Your task to perform on an android device: Open internet settings Image 0: 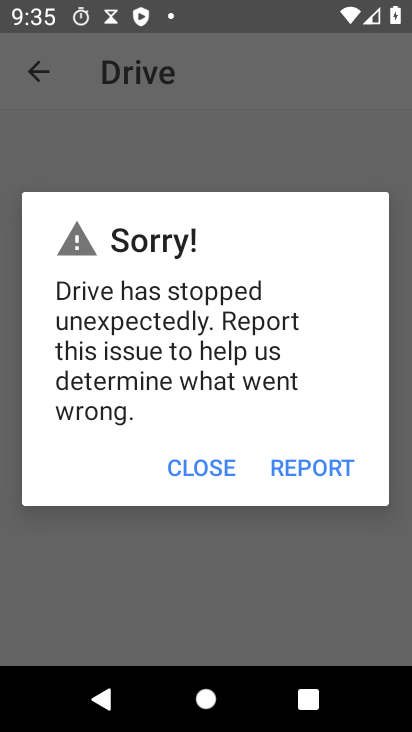
Step 0: press home button
Your task to perform on an android device: Open internet settings Image 1: 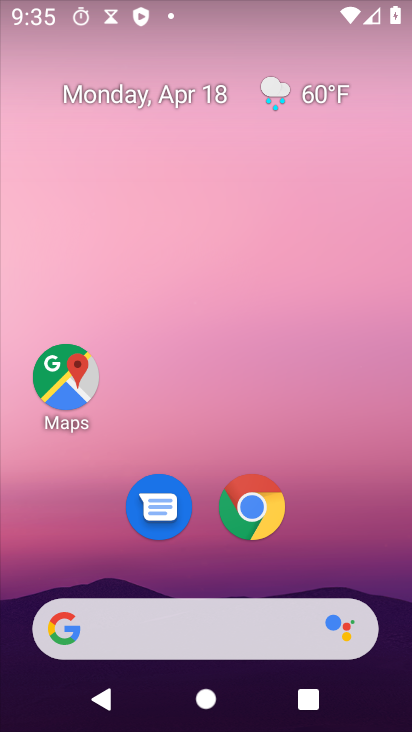
Step 1: drag from (298, 562) to (330, 120)
Your task to perform on an android device: Open internet settings Image 2: 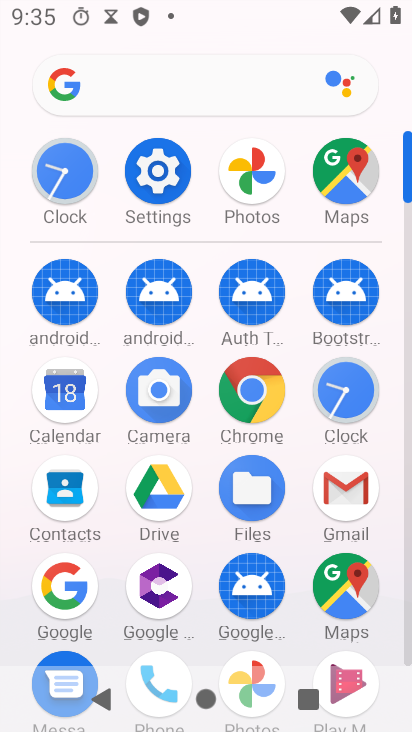
Step 2: click (161, 171)
Your task to perform on an android device: Open internet settings Image 3: 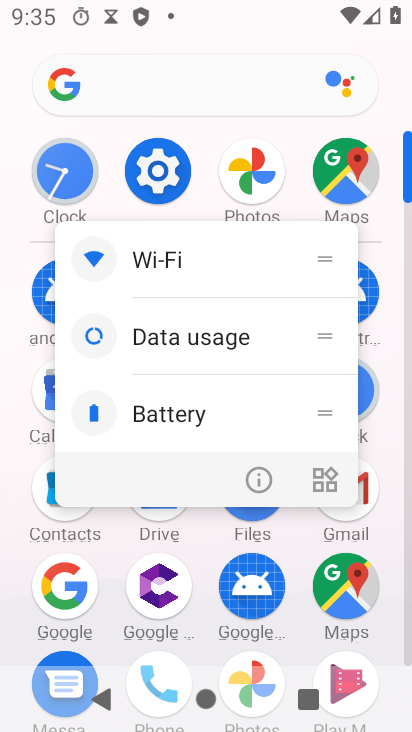
Step 3: click (162, 168)
Your task to perform on an android device: Open internet settings Image 4: 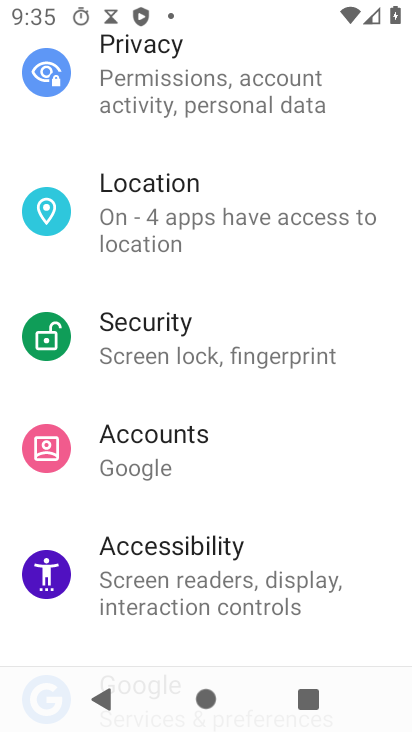
Step 4: drag from (201, 448) to (227, 507)
Your task to perform on an android device: Open internet settings Image 5: 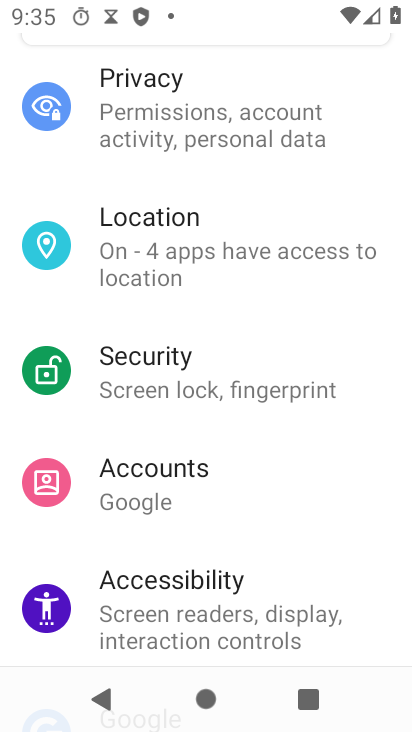
Step 5: drag from (194, 420) to (232, 502)
Your task to perform on an android device: Open internet settings Image 6: 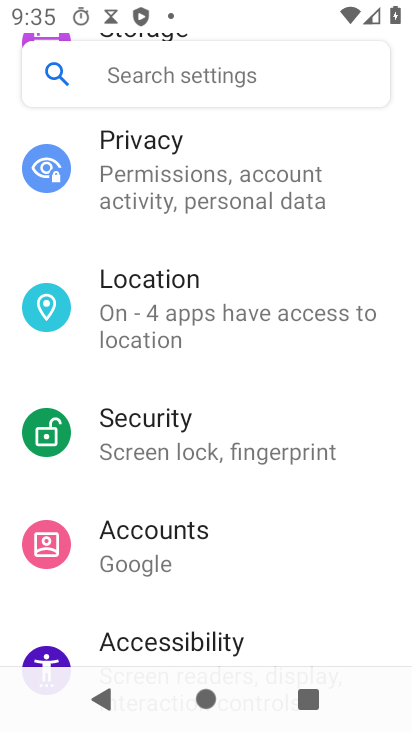
Step 6: drag from (195, 360) to (228, 433)
Your task to perform on an android device: Open internet settings Image 7: 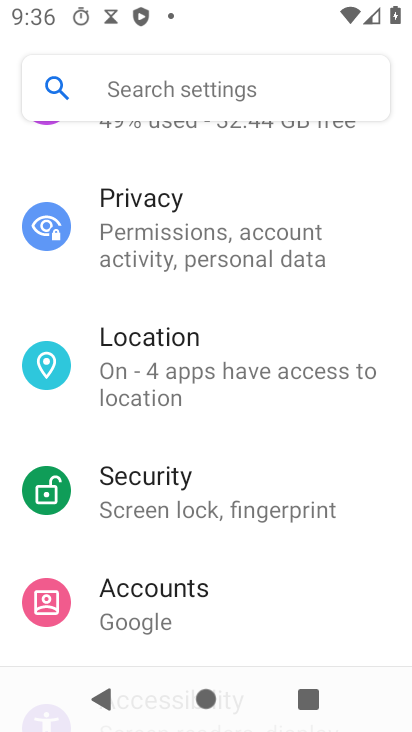
Step 7: drag from (228, 327) to (253, 415)
Your task to perform on an android device: Open internet settings Image 8: 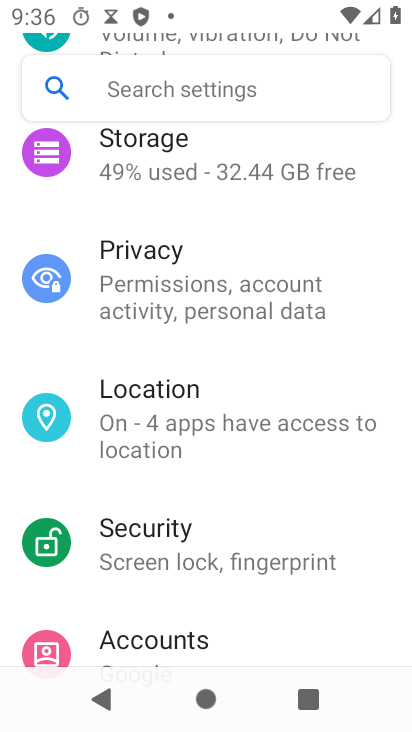
Step 8: drag from (234, 343) to (241, 388)
Your task to perform on an android device: Open internet settings Image 9: 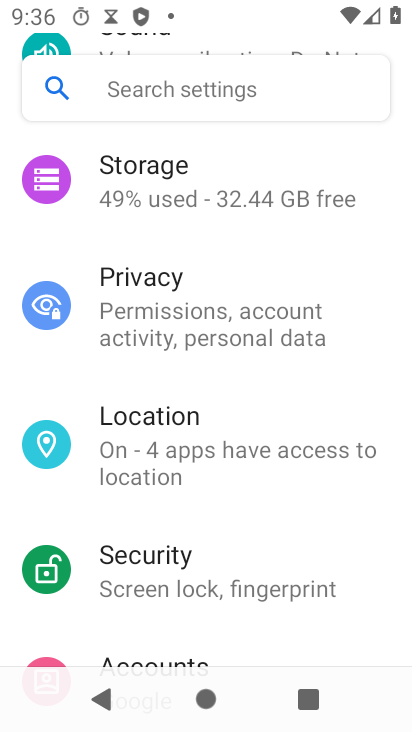
Step 9: drag from (244, 307) to (255, 389)
Your task to perform on an android device: Open internet settings Image 10: 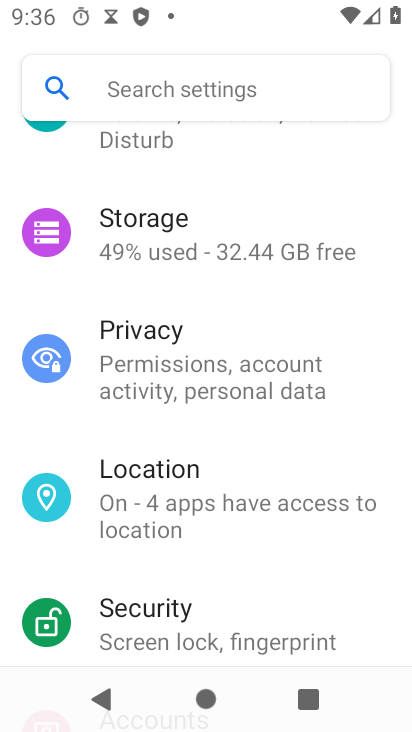
Step 10: drag from (247, 287) to (259, 376)
Your task to perform on an android device: Open internet settings Image 11: 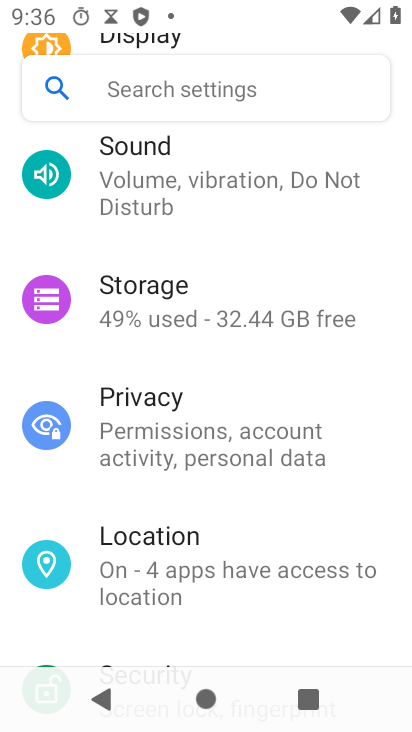
Step 11: drag from (250, 313) to (256, 415)
Your task to perform on an android device: Open internet settings Image 12: 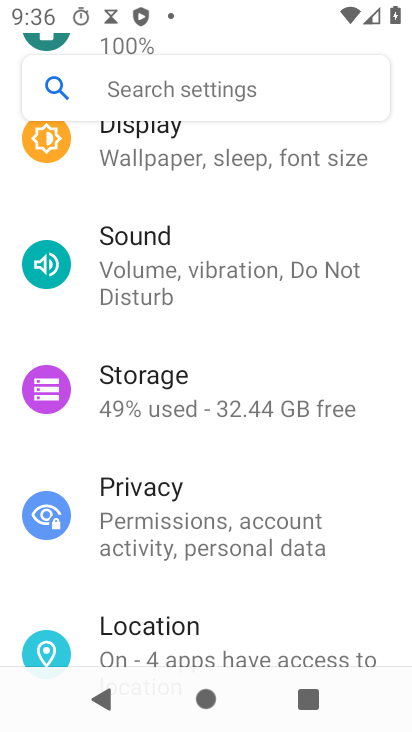
Step 12: drag from (244, 333) to (252, 422)
Your task to perform on an android device: Open internet settings Image 13: 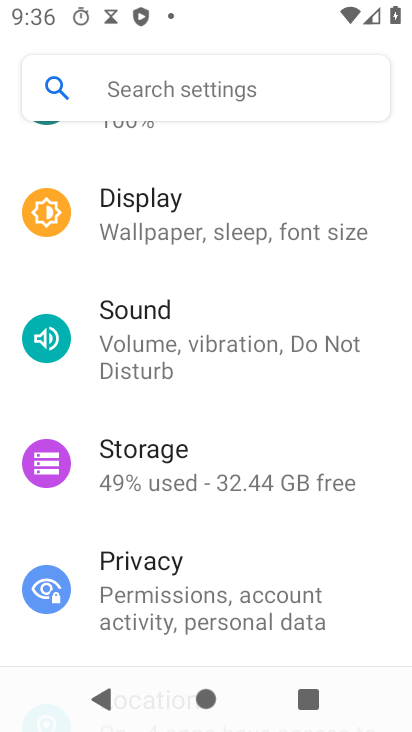
Step 13: drag from (232, 327) to (246, 409)
Your task to perform on an android device: Open internet settings Image 14: 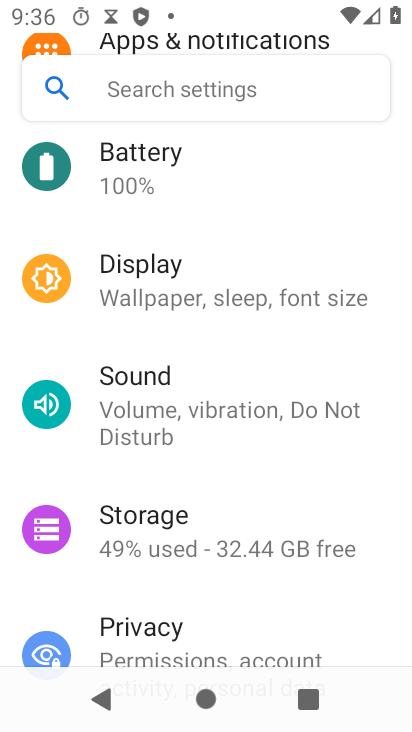
Step 14: drag from (232, 318) to (237, 415)
Your task to perform on an android device: Open internet settings Image 15: 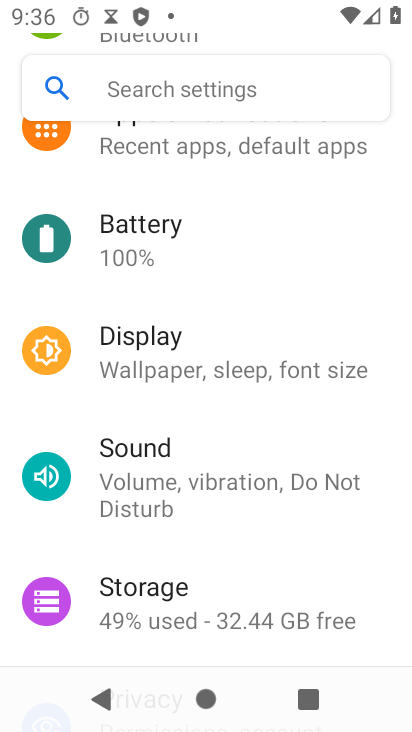
Step 15: drag from (235, 342) to (248, 400)
Your task to perform on an android device: Open internet settings Image 16: 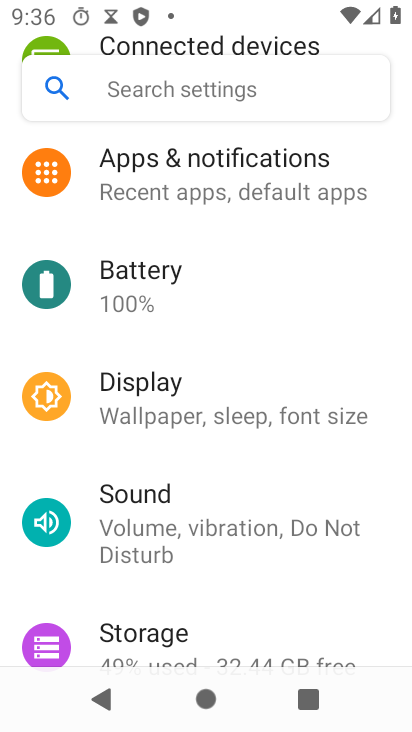
Step 16: drag from (237, 360) to (245, 434)
Your task to perform on an android device: Open internet settings Image 17: 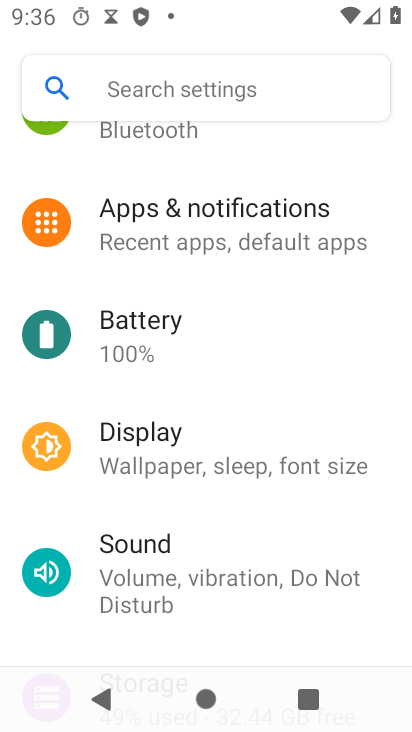
Step 17: drag from (234, 371) to (263, 514)
Your task to perform on an android device: Open internet settings Image 18: 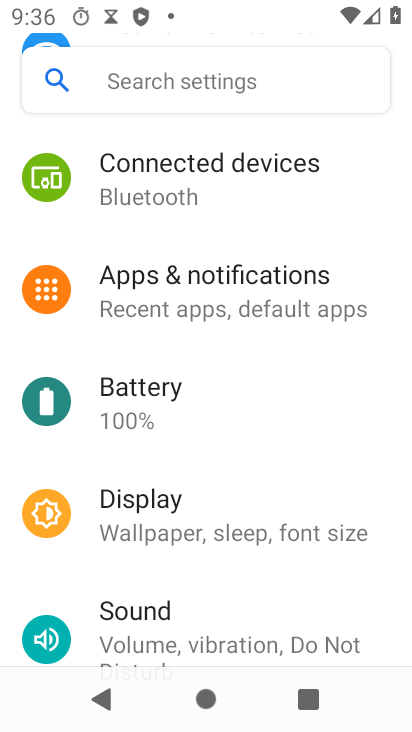
Step 18: drag from (264, 383) to (279, 477)
Your task to perform on an android device: Open internet settings Image 19: 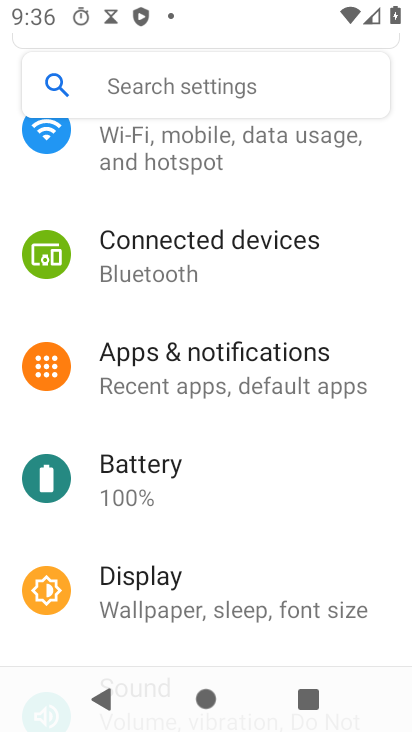
Step 19: drag from (261, 376) to (284, 485)
Your task to perform on an android device: Open internet settings Image 20: 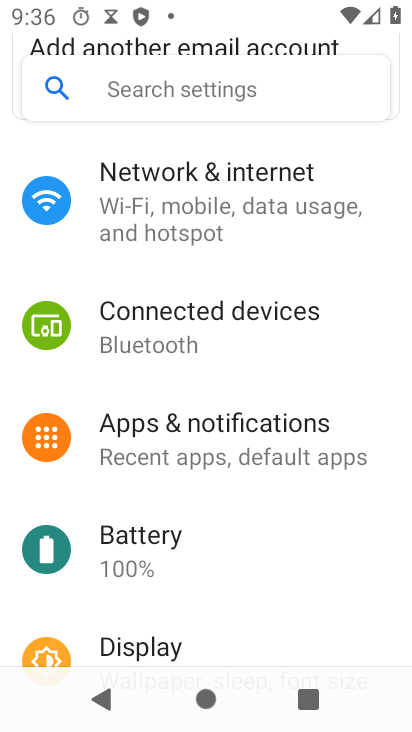
Step 20: click (300, 221)
Your task to perform on an android device: Open internet settings Image 21: 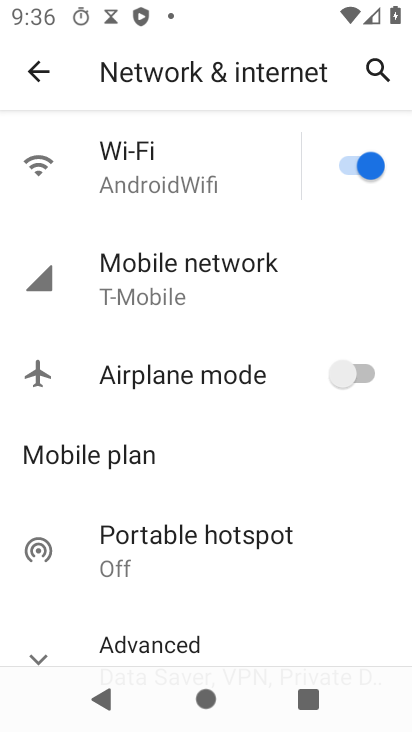
Step 21: click (276, 290)
Your task to perform on an android device: Open internet settings Image 22: 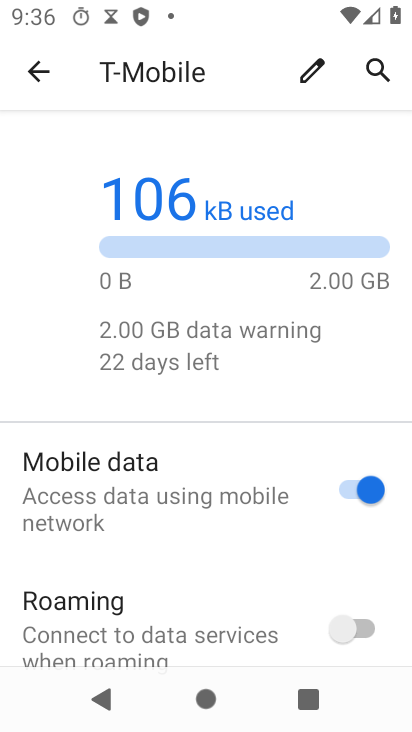
Step 22: task complete